Your task to perform on an android device: turn off javascript in the chrome app Image 0: 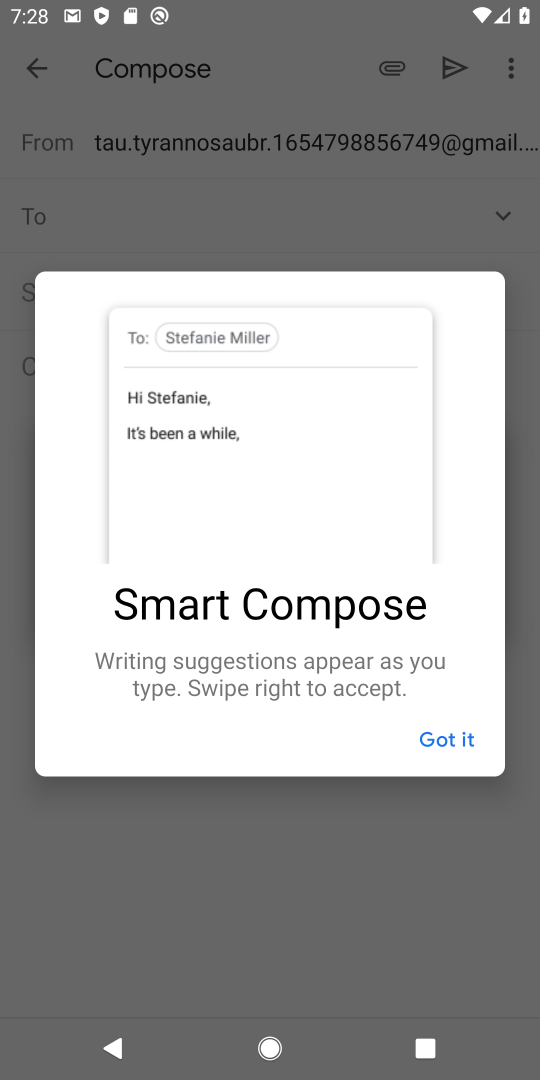
Step 0: press home button
Your task to perform on an android device: turn off javascript in the chrome app Image 1: 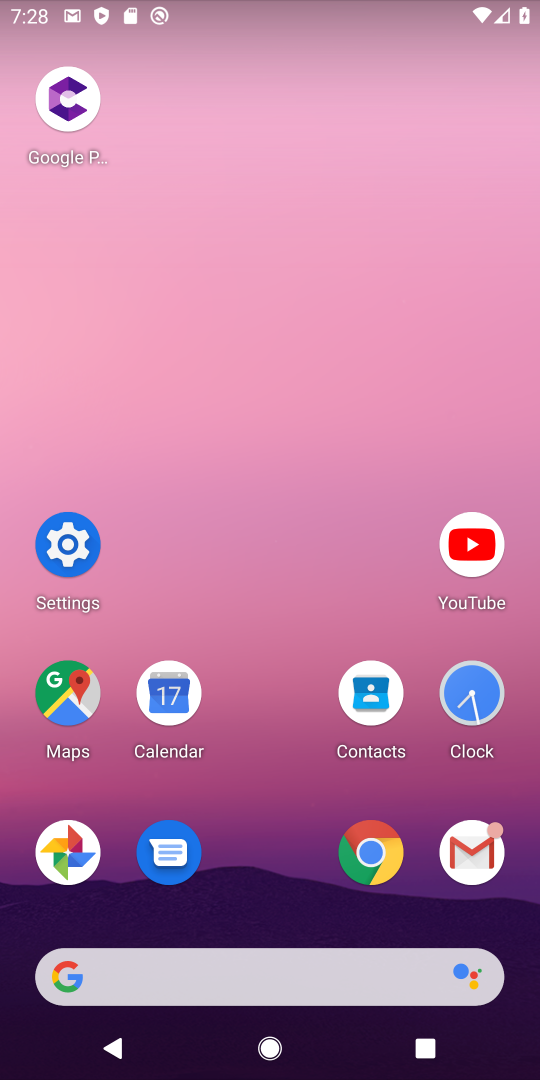
Step 1: click (372, 853)
Your task to perform on an android device: turn off javascript in the chrome app Image 2: 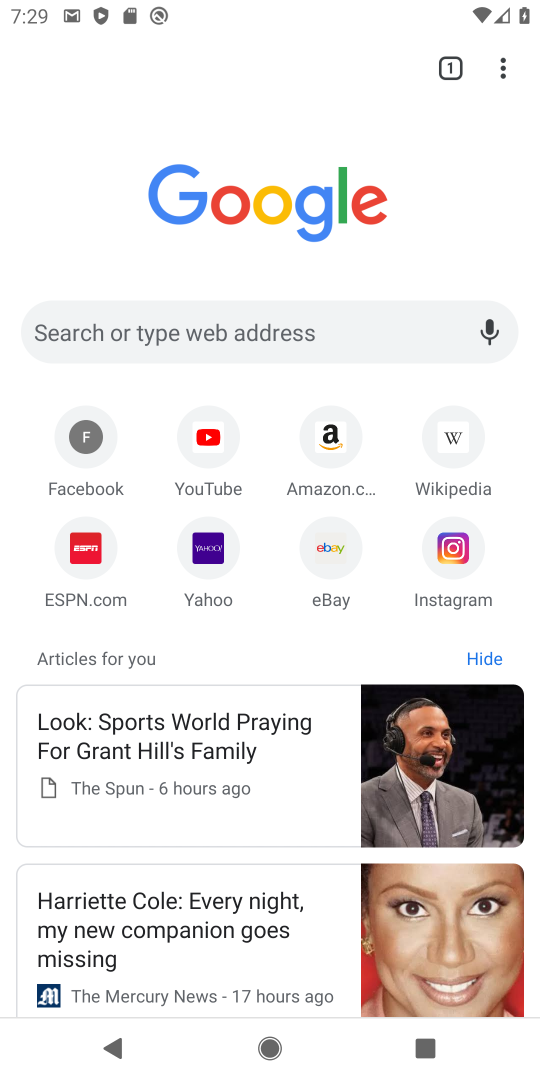
Step 2: click (502, 63)
Your task to perform on an android device: turn off javascript in the chrome app Image 3: 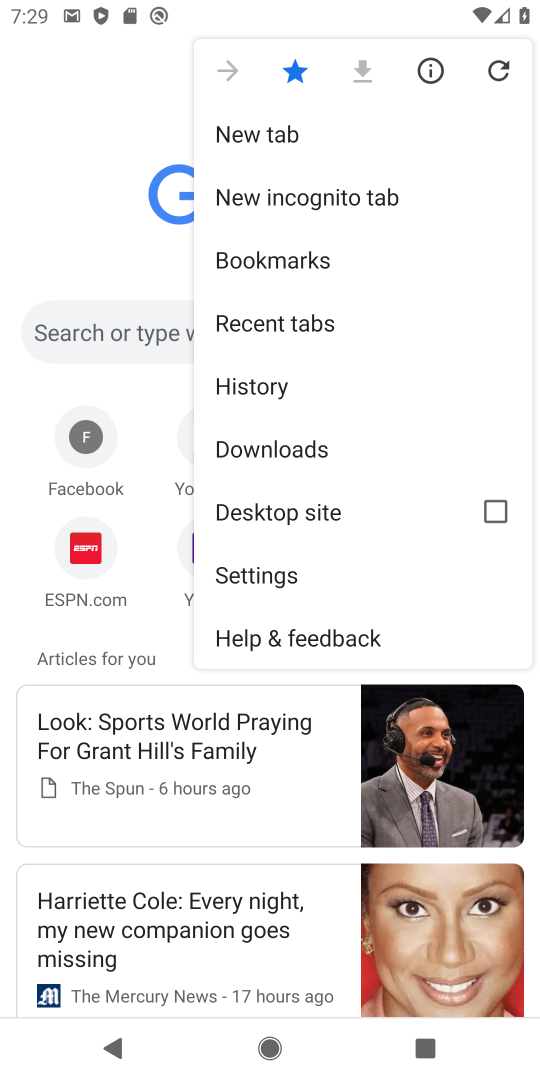
Step 3: click (284, 572)
Your task to perform on an android device: turn off javascript in the chrome app Image 4: 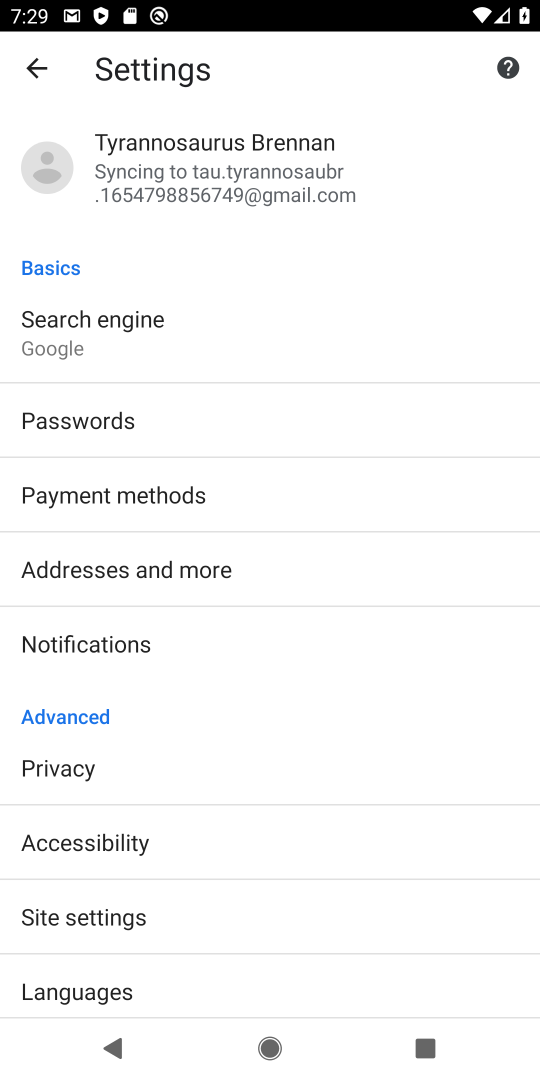
Step 4: click (93, 910)
Your task to perform on an android device: turn off javascript in the chrome app Image 5: 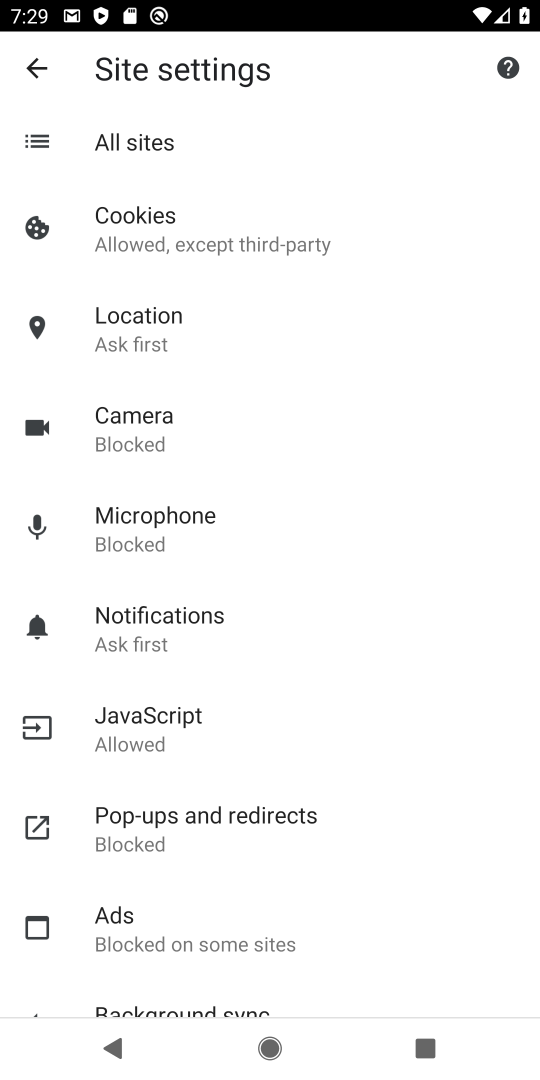
Step 5: click (173, 715)
Your task to perform on an android device: turn off javascript in the chrome app Image 6: 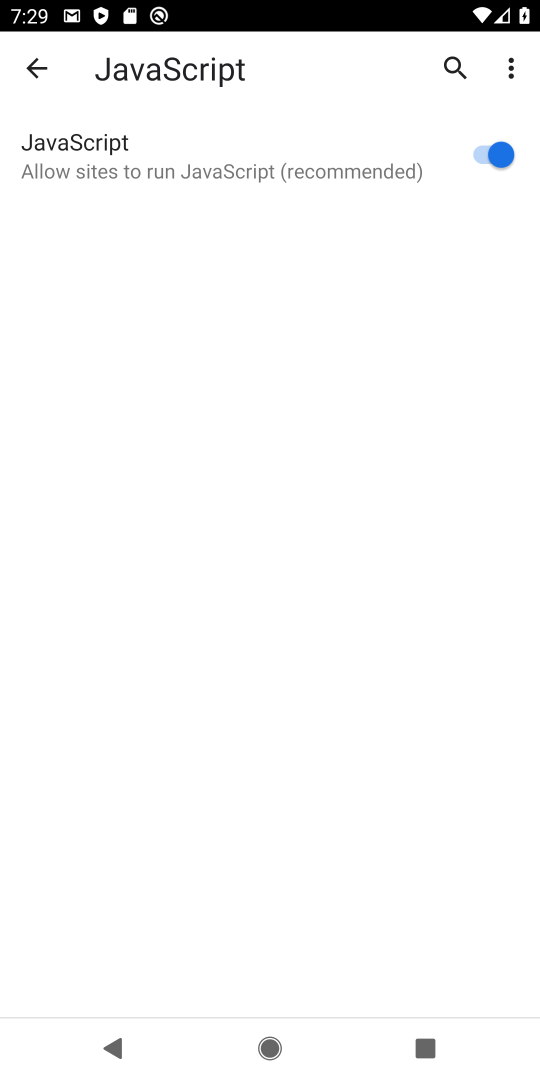
Step 6: click (493, 149)
Your task to perform on an android device: turn off javascript in the chrome app Image 7: 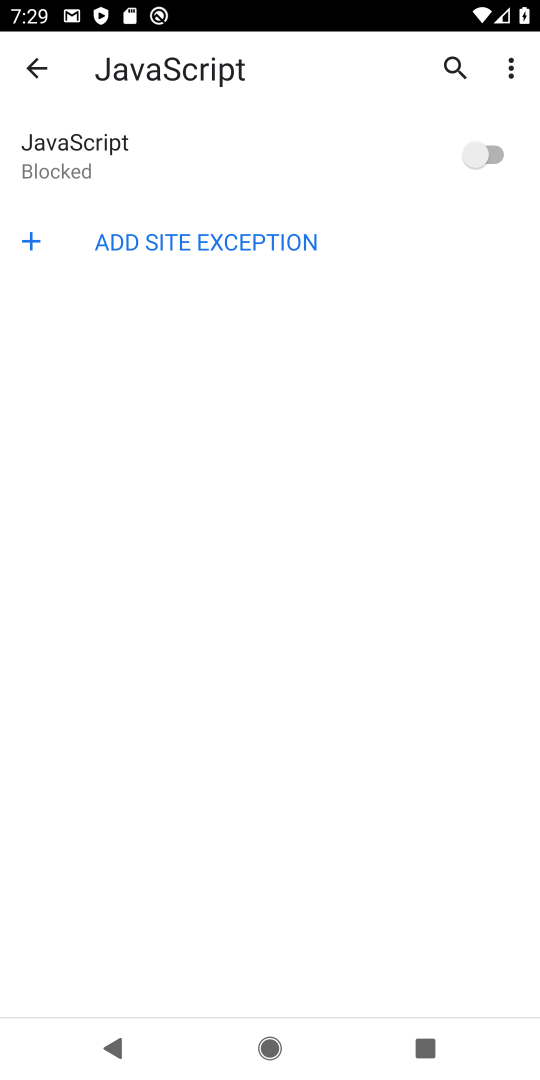
Step 7: task complete